Your task to perform on an android device: toggle pop-ups in chrome Image 0: 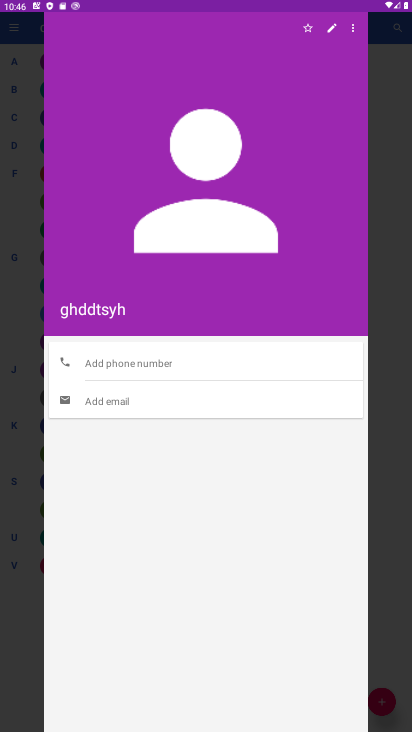
Step 0: press home button
Your task to perform on an android device: toggle pop-ups in chrome Image 1: 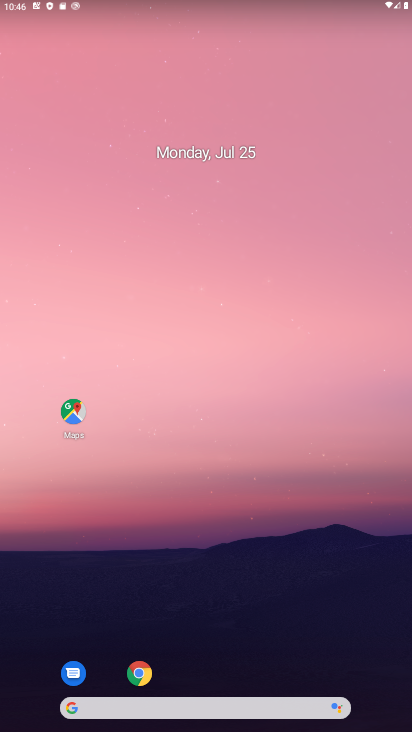
Step 1: drag from (214, 672) to (207, 0)
Your task to perform on an android device: toggle pop-ups in chrome Image 2: 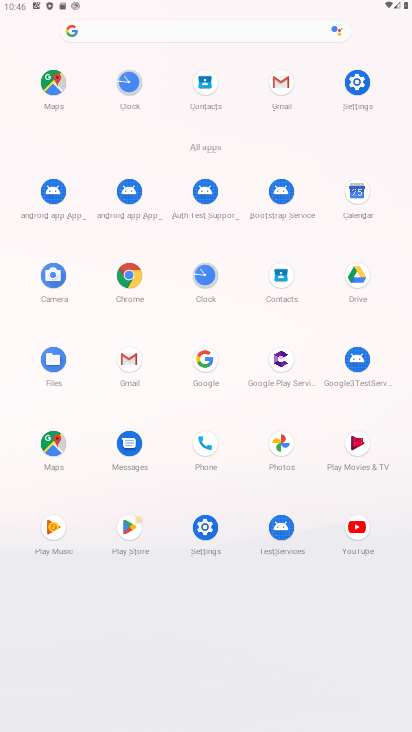
Step 2: click (131, 267)
Your task to perform on an android device: toggle pop-ups in chrome Image 3: 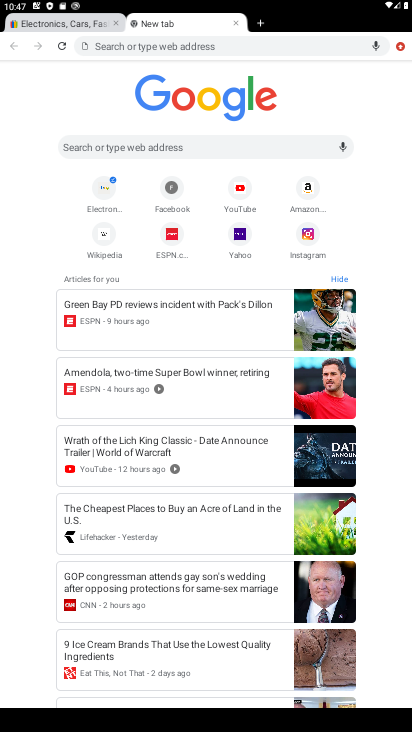
Step 3: click (399, 47)
Your task to perform on an android device: toggle pop-ups in chrome Image 4: 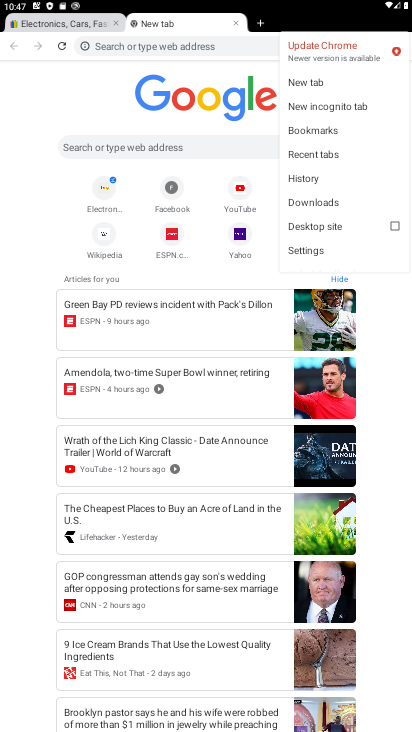
Step 4: click (324, 247)
Your task to perform on an android device: toggle pop-ups in chrome Image 5: 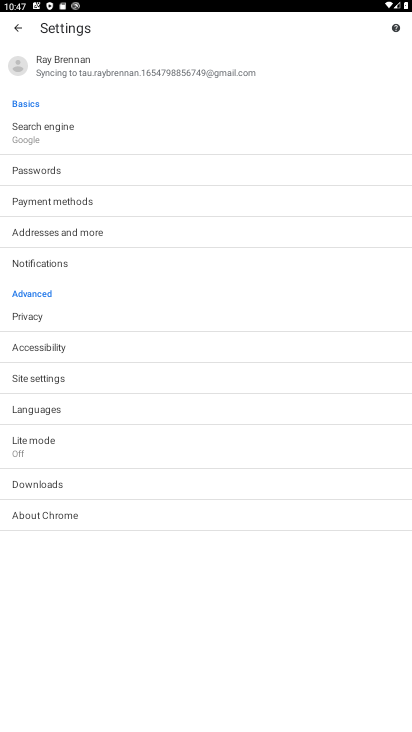
Step 5: click (68, 381)
Your task to perform on an android device: toggle pop-ups in chrome Image 6: 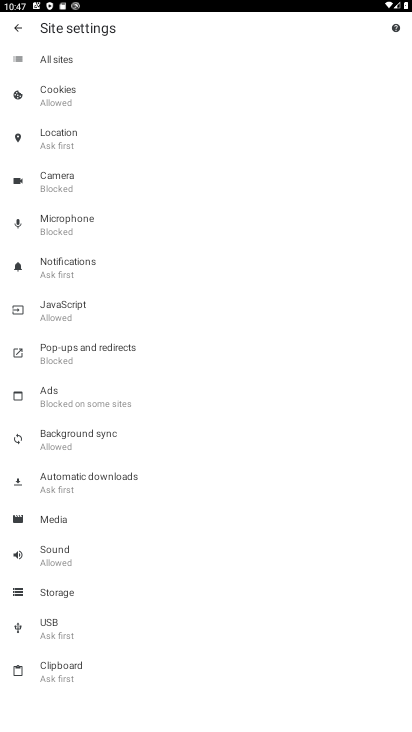
Step 6: click (81, 347)
Your task to perform on an android device: toggle pop-ups in chrome Image 7: 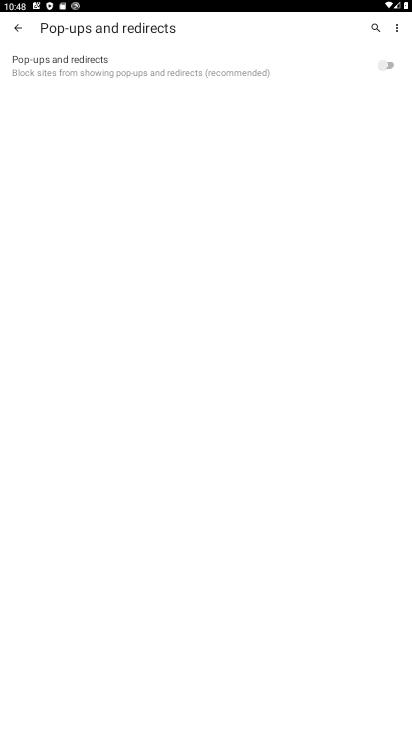
Step 7: click (388, 59)
Your task to perform on an android device: toggle pop-ups in chrome Image 8: 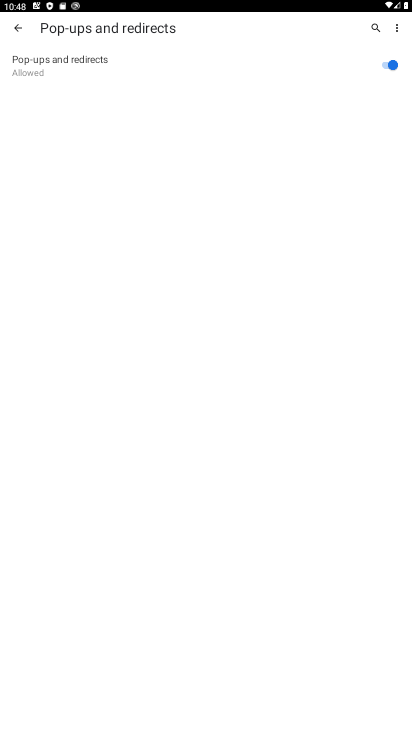
Step 8: click (120, 55)
Your task to perform on an android device: toggle pop-ups in chrome Image 9: 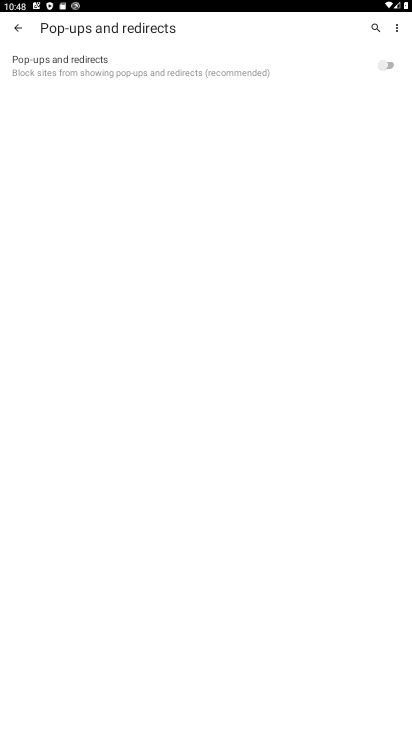
Step 9: click (386, 62)
Your task to perform on an android device: toggle pop-ups in chrome Image 10: 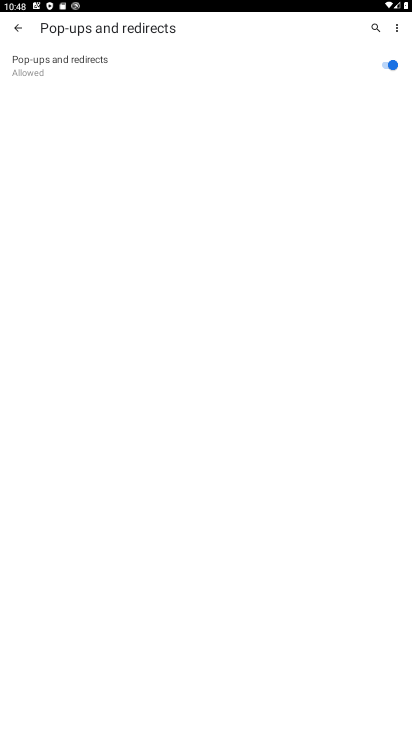
Step 10: task complete